Your task to perform on an android device: Open Google Maps Image 0: 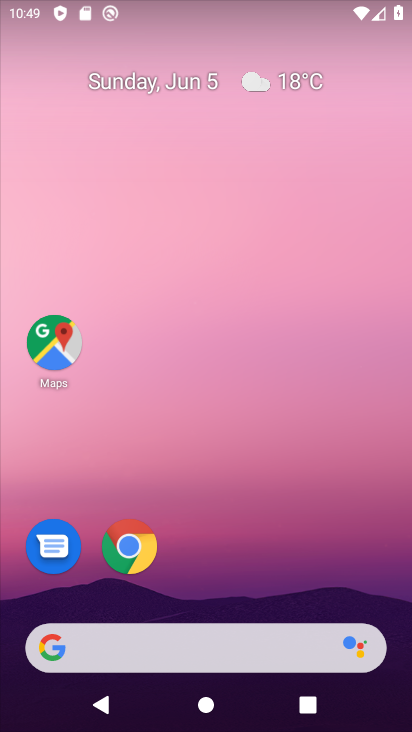
Step 0: click (76, 339)
Your task to perform on an android device: Open Google Maps Image 1: 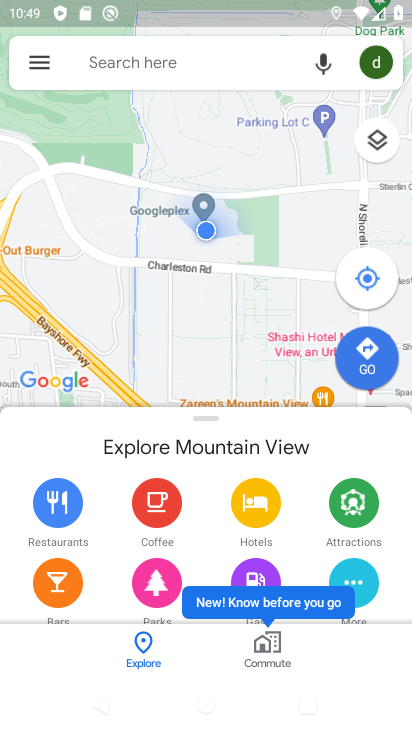
Step 1: task complete